Your task to perform on an android device: Open Chrome and go to the settings page Image 0: 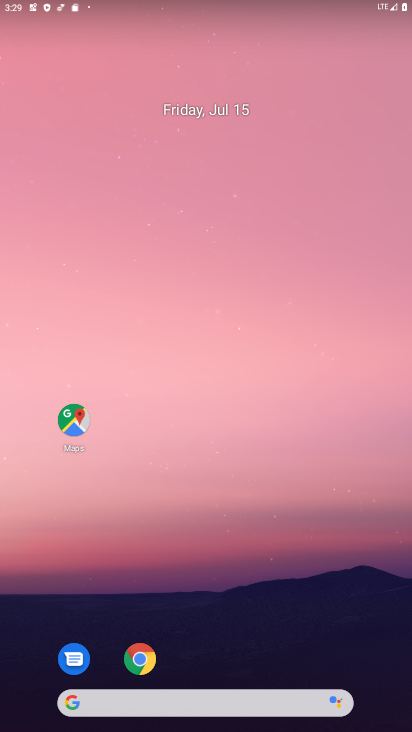
Step 0: click (138, 666)
Your task to perform on an android device: Open Chrome and go to the settings page Image 1: 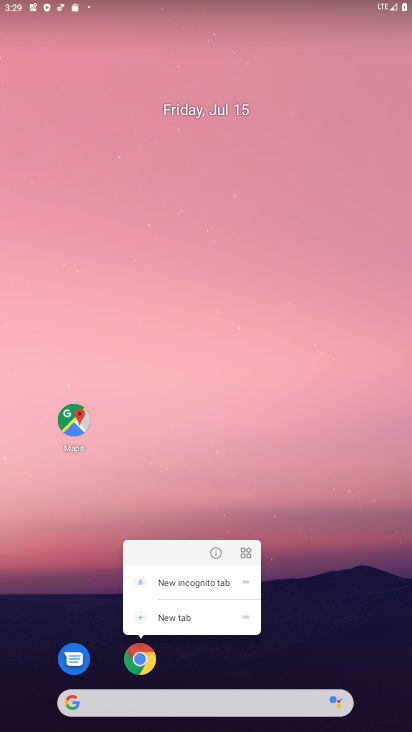
Step 1: click (138, 666)
Your task to perform on an android device: Open Chrome and go to the settings page Image 2: 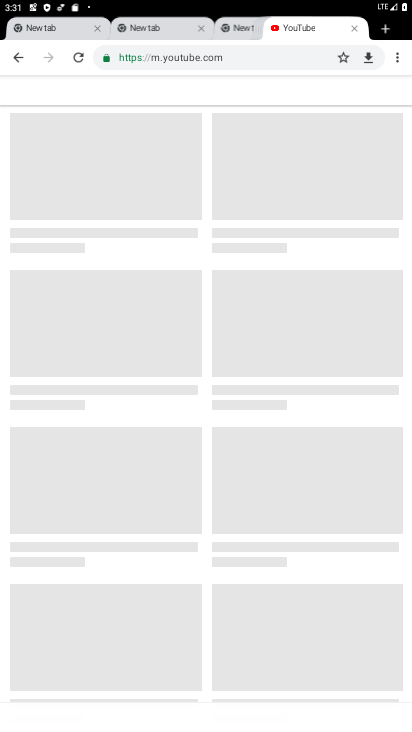
Step 2: click (396, 56)
Your task to perform on an android device: Open Chrome and go to the settings page Image 3: 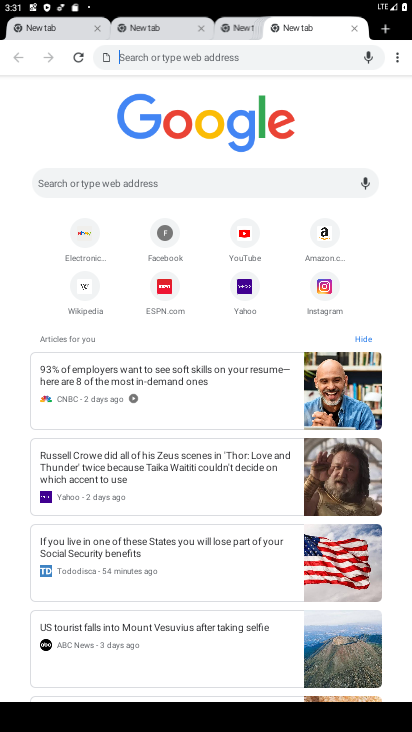
Step 3: click (401, 56)
Your task to perform on an android device: Open Chrome and go to the settings page Image 4: 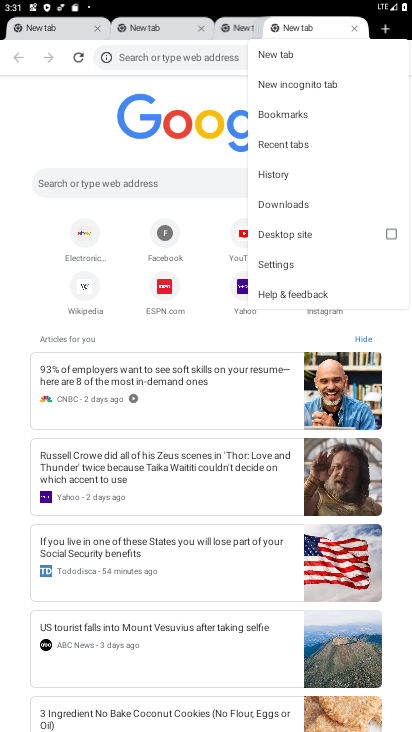
Step 4: click (289, 262)
Your task to perform on an android device: Open Chrome and go to the settings page Image 5: 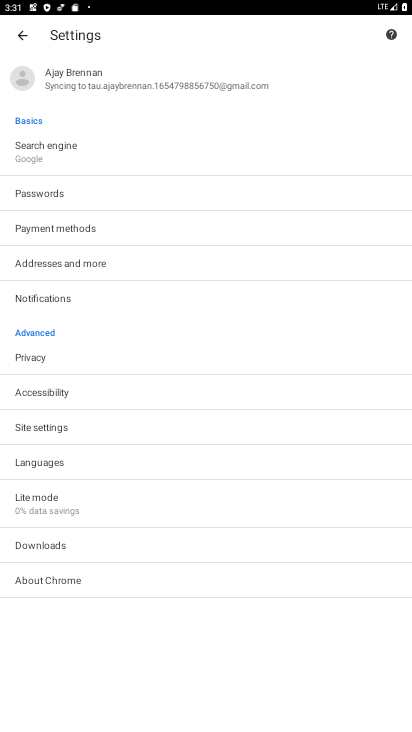
Step 5: task complete